Your task to perform on an android device: Open Youtube and go to "Your channel" Image 0: 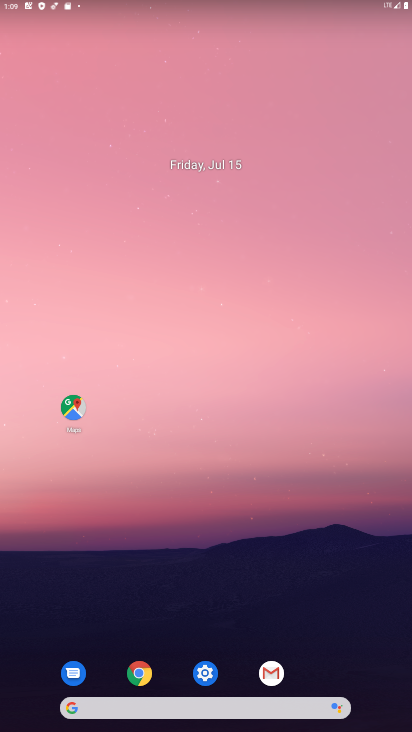
Step 0: press home button
Your task to perform on an android device: Open Youtube and go to "Your channel" Image 1: 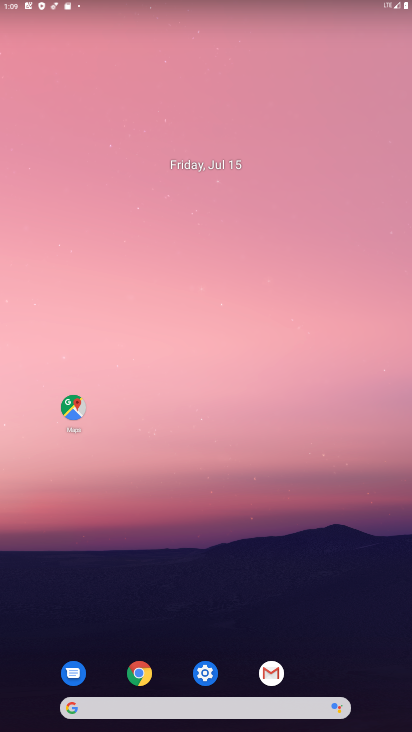
Step 1: drag from (286, 543) to (215, 195)
Your task to perform on an android device: Open Youtube and go to "Your channel" Image 2: 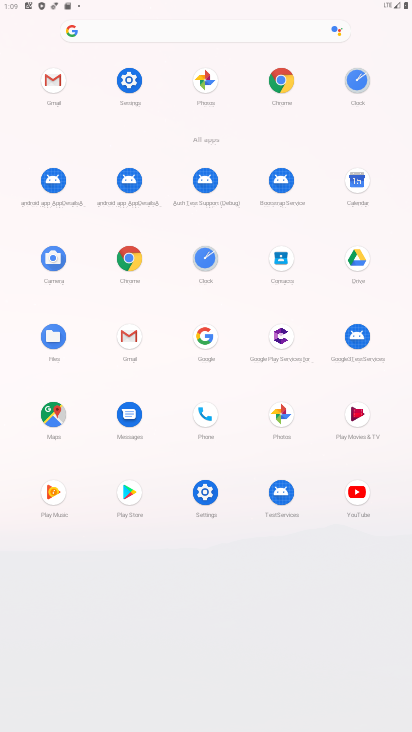
Step 2: click (351, 488)
Your task to perform on an android device: Open Youtube and go to "Your channel" Image 3: 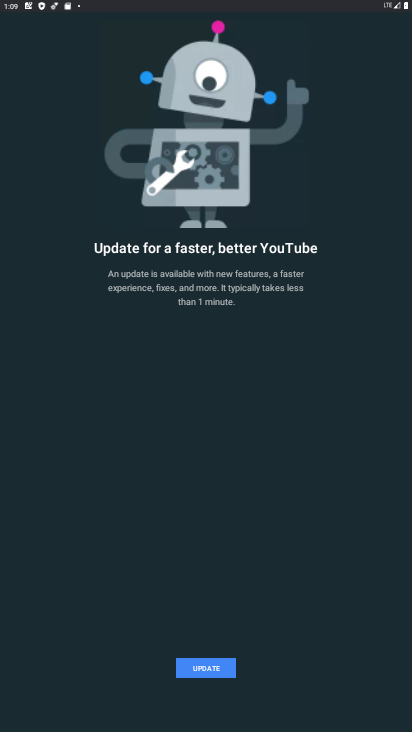
Step 3: click (207, 670)
Your task to perform on an android device: Open Youtube and go to "Your channel" Image 4: 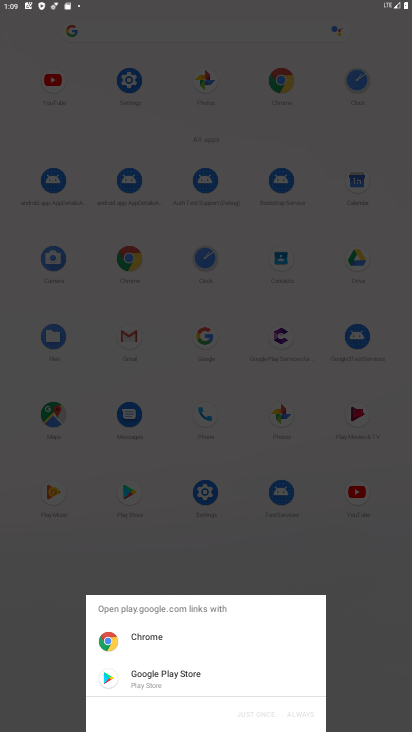
Step 4: click (169, 672)
Your task to perform on an android device: Open Youtube and go to "Your channel" Image 5: 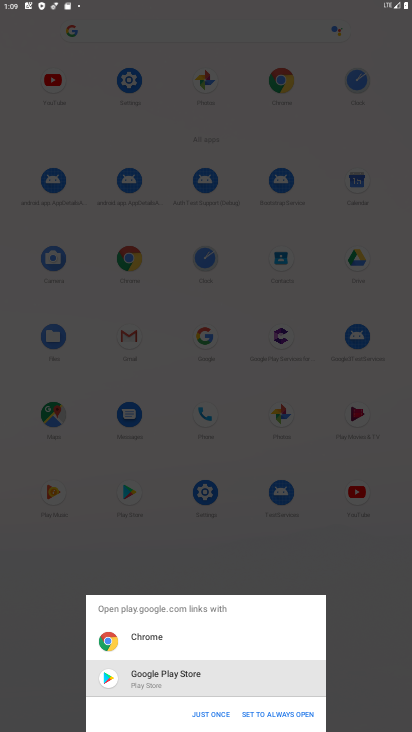
Step 5: click (200, 714)
Your task to perform on an android device: Open Youtube and go to "Your channel" Image 6: 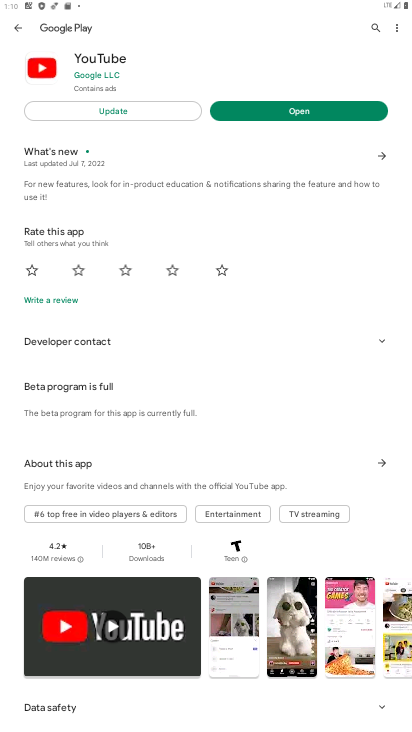
Step 6: click (101, 109)
Your task to perform on an android device: Open Youtube and go to "Your channel" Image 7: 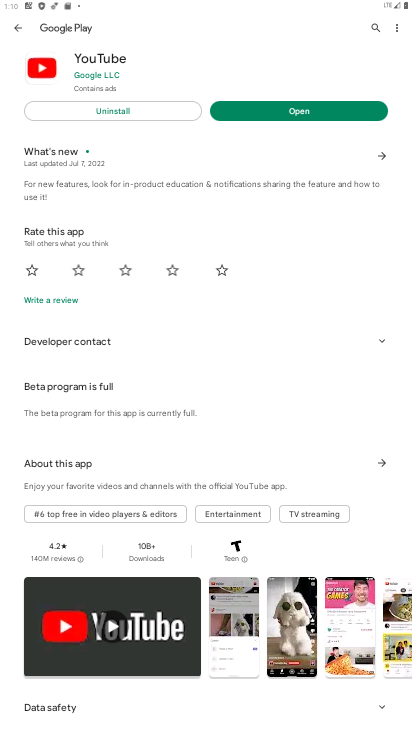
Step 7: click (259, 104)
Your task to perform on an android device: Open Youtube and go to "Your channel" Image 8: 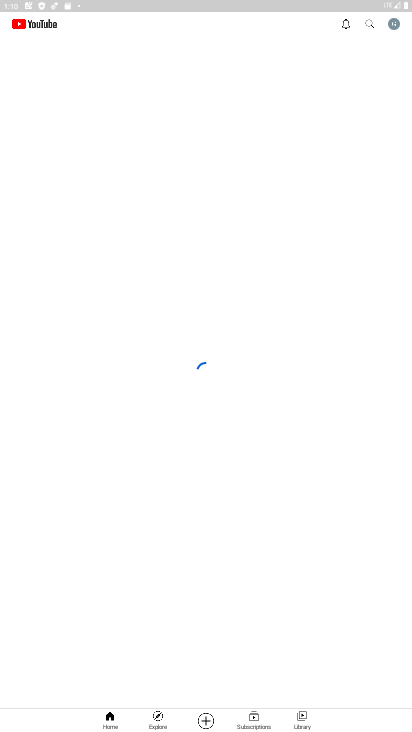
Step 8: click (392, 22)
Your task to perform on an android device: Open Youtube and go to "Your channel" Image 9: 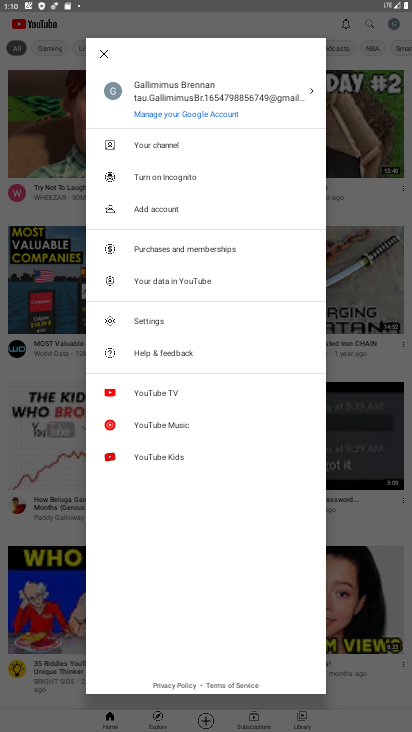
Step 9: click (146, 144)
Your task to perform on an android device: Open Youtube and go to "Your channel" Image 10: 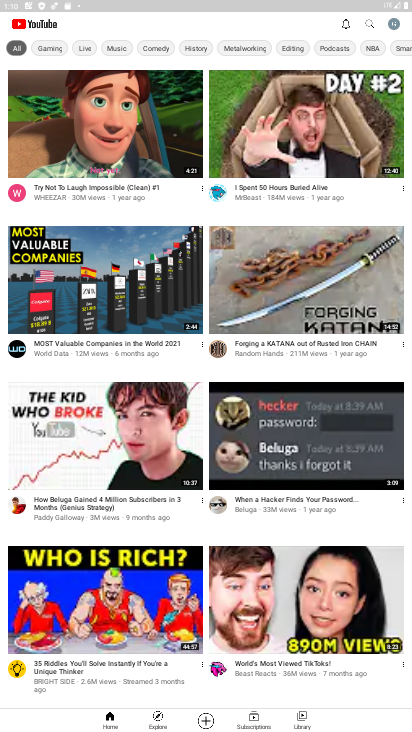
Step 10: click (397, 22)
Your task to perform on an android device: Open Youtube and go to "Your channel" Image 11: 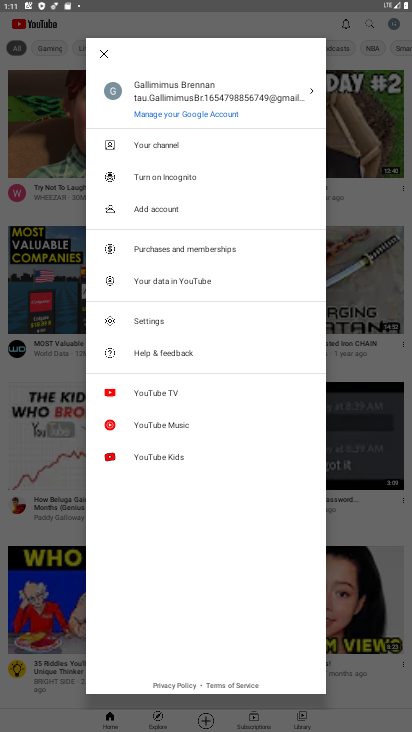
Step 11: click (170, 145)
Your task to perform on an android device: Open Youtube and go to "Your channel" Image 12: 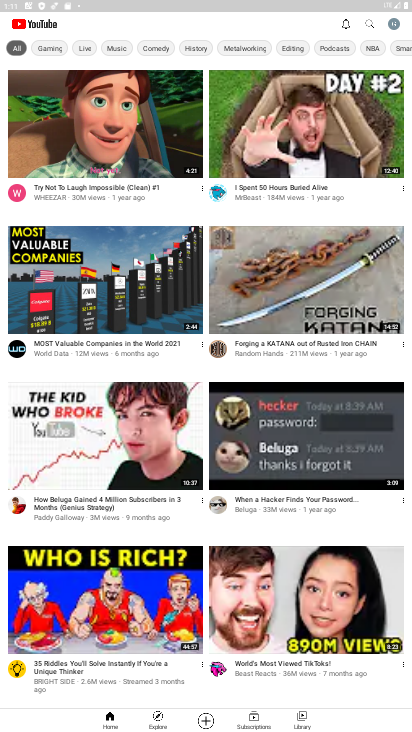
Step 12: task complete